Your task to perform on an android device: Go to calendar. Show me events next week Image 0: 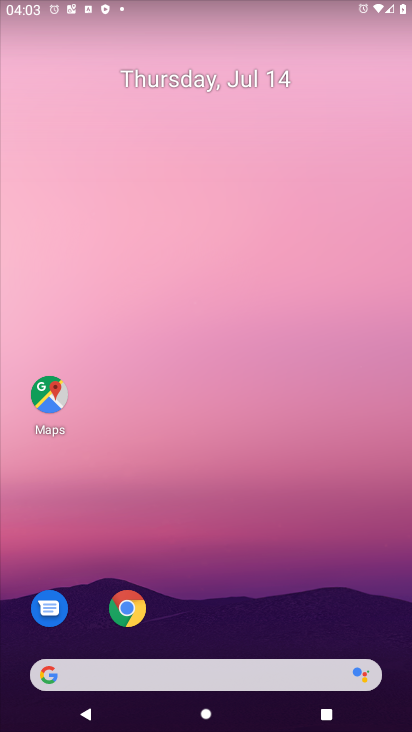
Step 0: drag from (389, 634) to (343, 141)
Your task to perform on an android device: Go to calendar. Show me events next week Image 1: 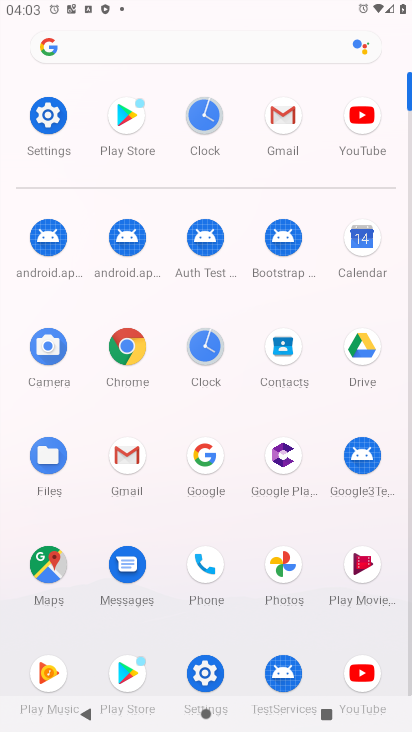
Step 1: click (362, 239)
Your task to perform on an android device: Go to calendar. Show me events next week Image 2: 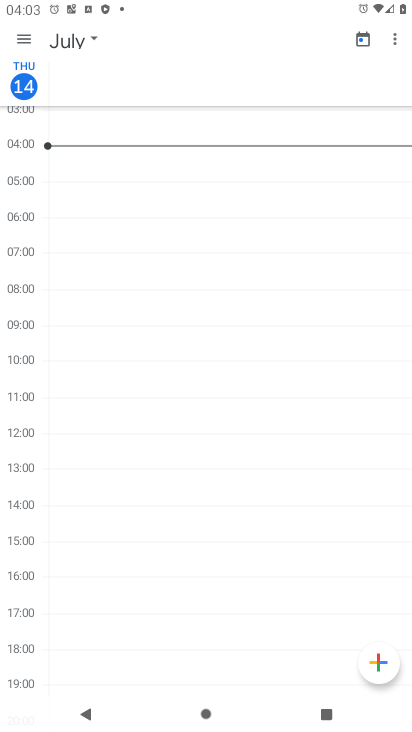
Step 2: click (16, 32)
Your task to perform on an android device: Go to calendar. Show me events next week Image 3: 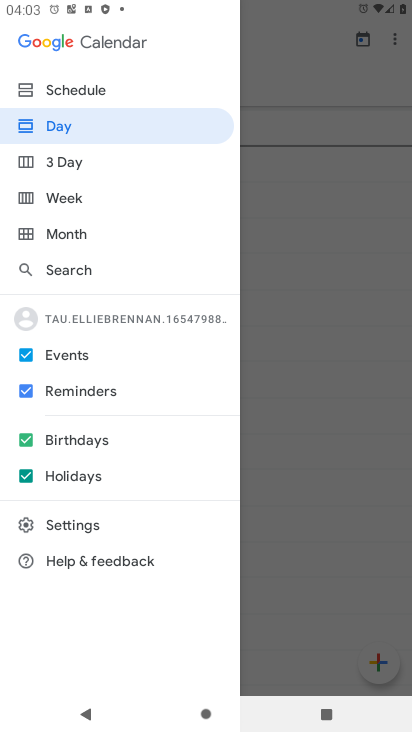
Step 3: click (56, 196)
Your task to perform on an android device: Go to calendar. Show me events next week Image 4: 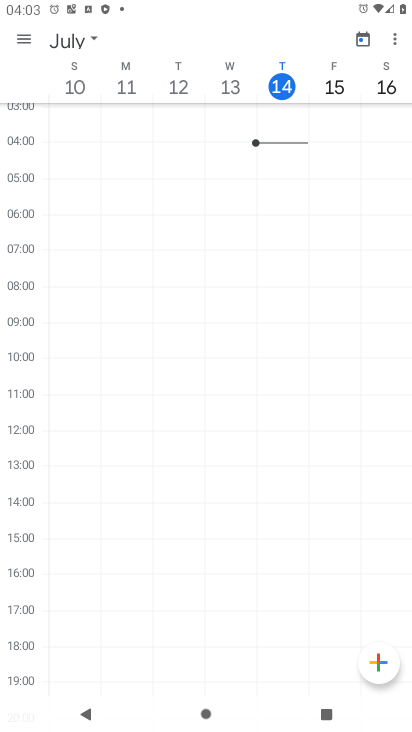
Step 4: click (93, 39)
Your task to perform on an android device: Go to calendar. Show me events next week Image 5: 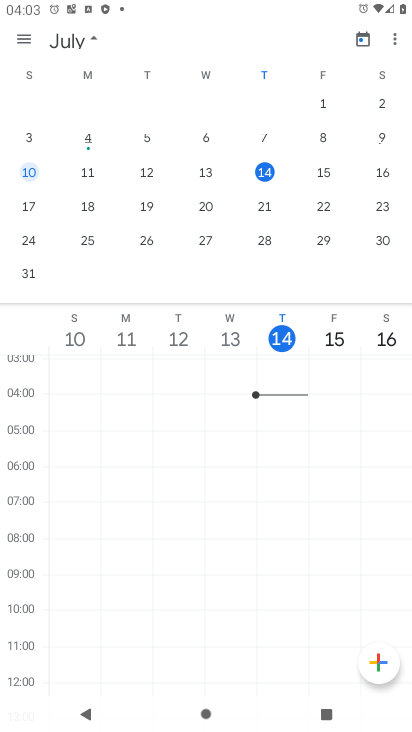
Step 5: click (23, 211)
Your task to perform on an android device: Go to calendar. Show me events next week Image 6: 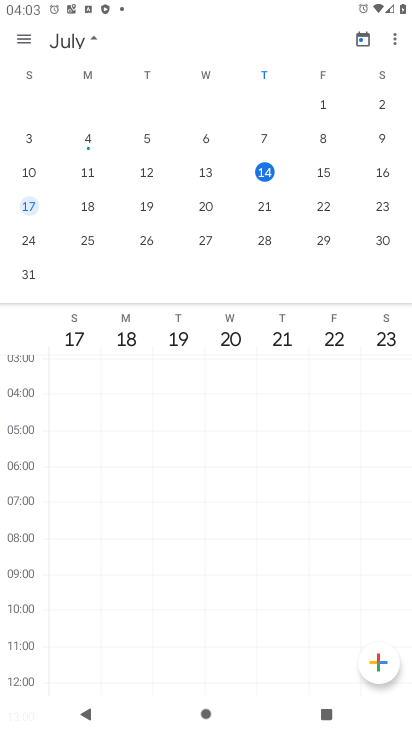
Step 6: task complete